Your task to perform on an android device: add a contact in the contacts app Image 0: 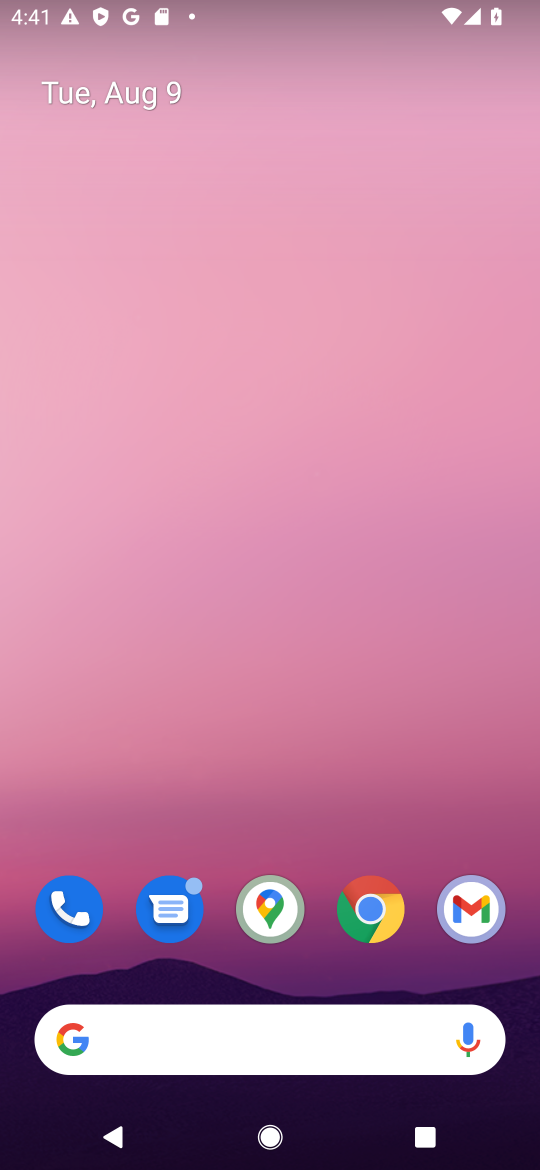
Step 0: drag from (380, 833) to (335, 219)
Your task to perform on an android device: add a contact in the contacts app Image 1: 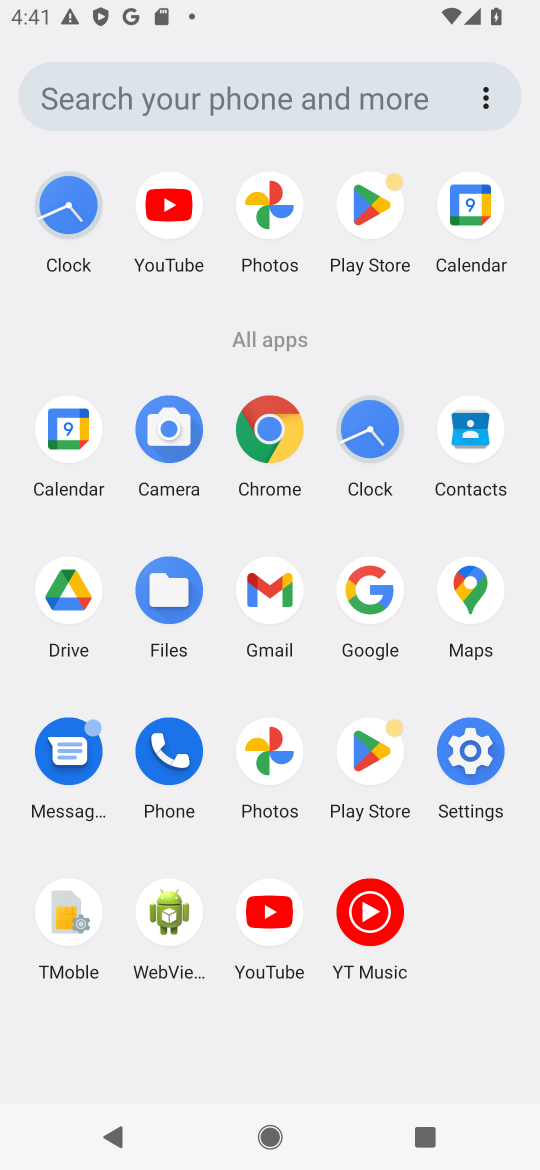
Step 1: click (473, 458)
Your task to perform on an android device: add a contact in the contacts app Image 2: 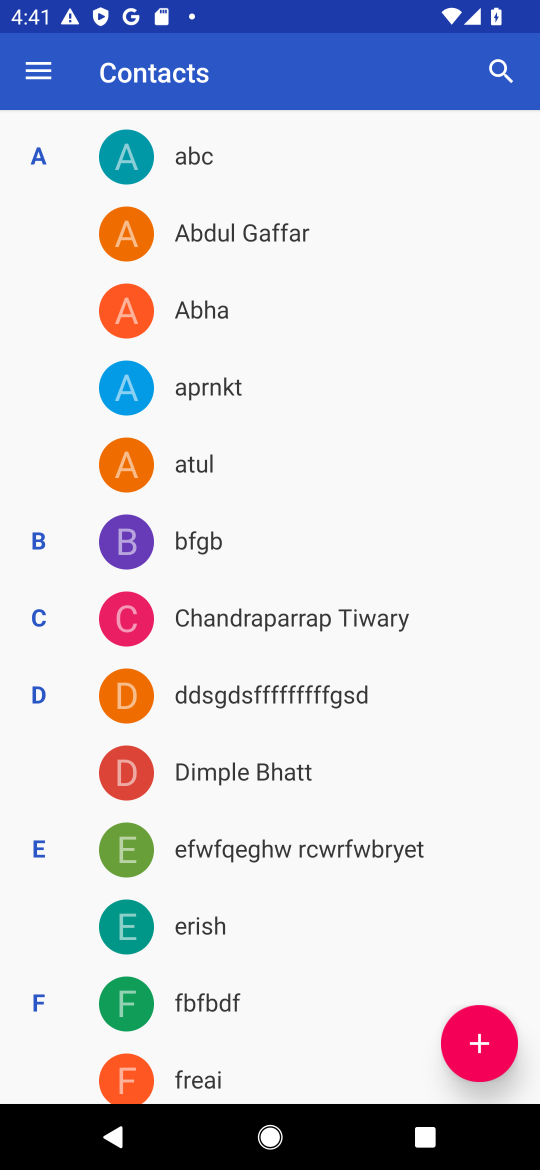
Step 2: click (489, 1064)
Your task to perform on an android device: add a contact in the contacts app Image 3: 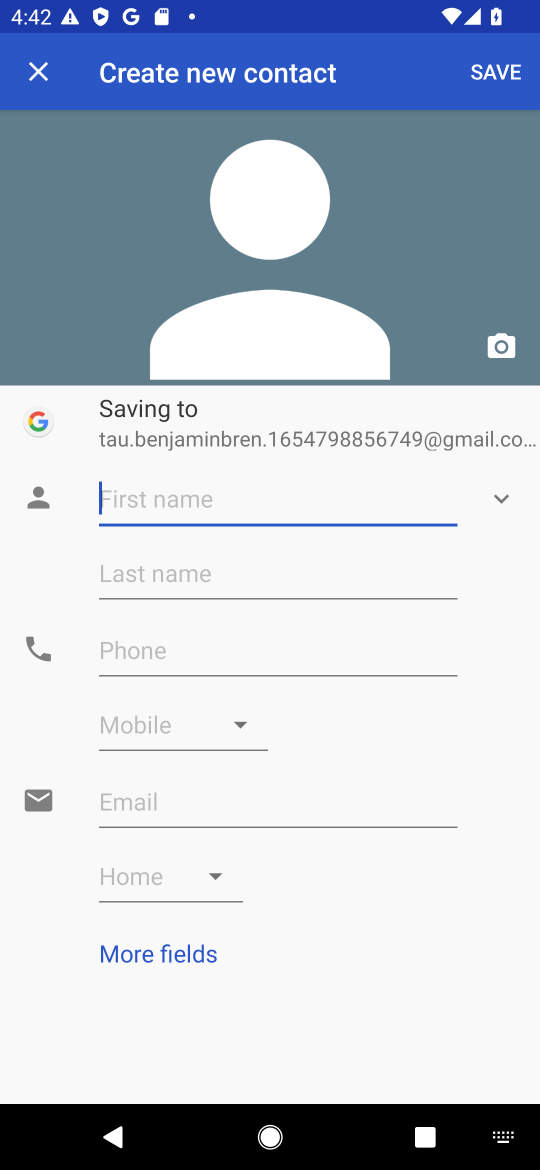
Step 3: click (254, 507)
Your task to perform on an android device: add a contact in the contacts app Image 4: 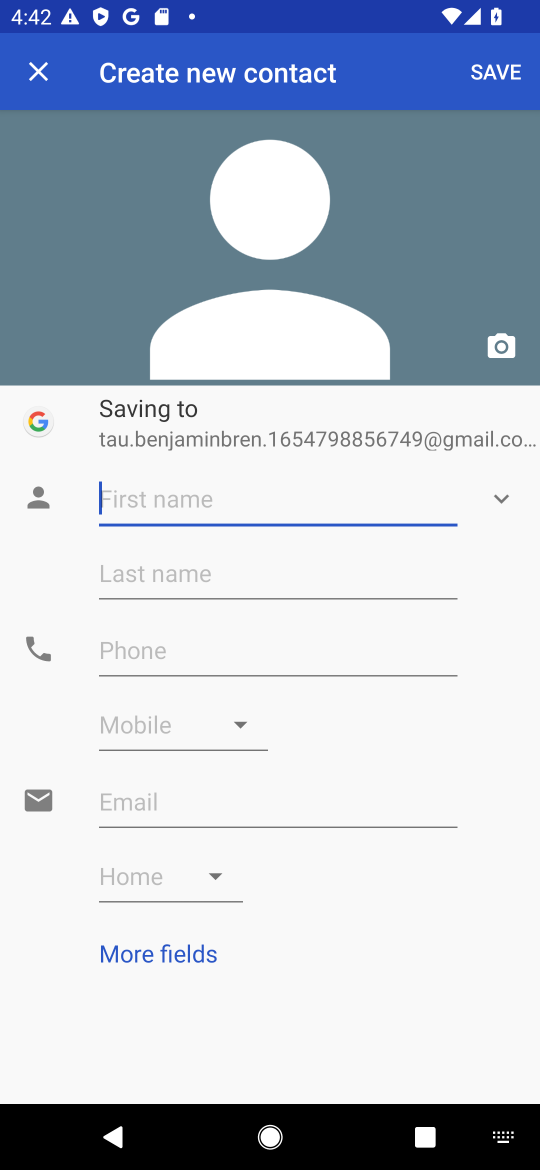
Step 4: type "jgvhk"
Your task to perform on an android device: add a contact in the contacts app Image 5: 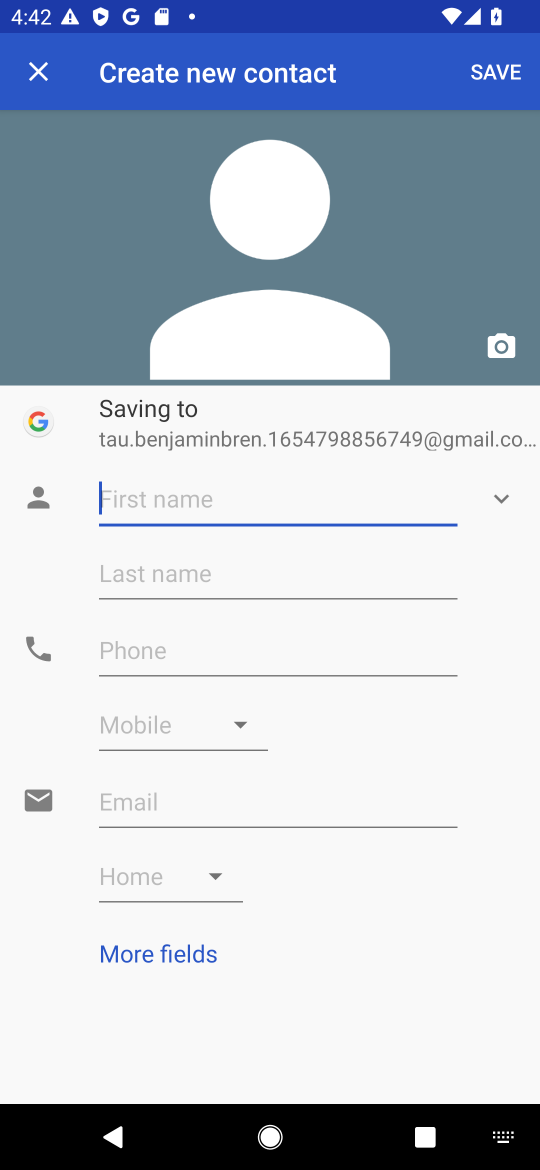
Step 5: click (191, 650)
Your task to perform on an android device: add a contact in the contacts app Image 6: 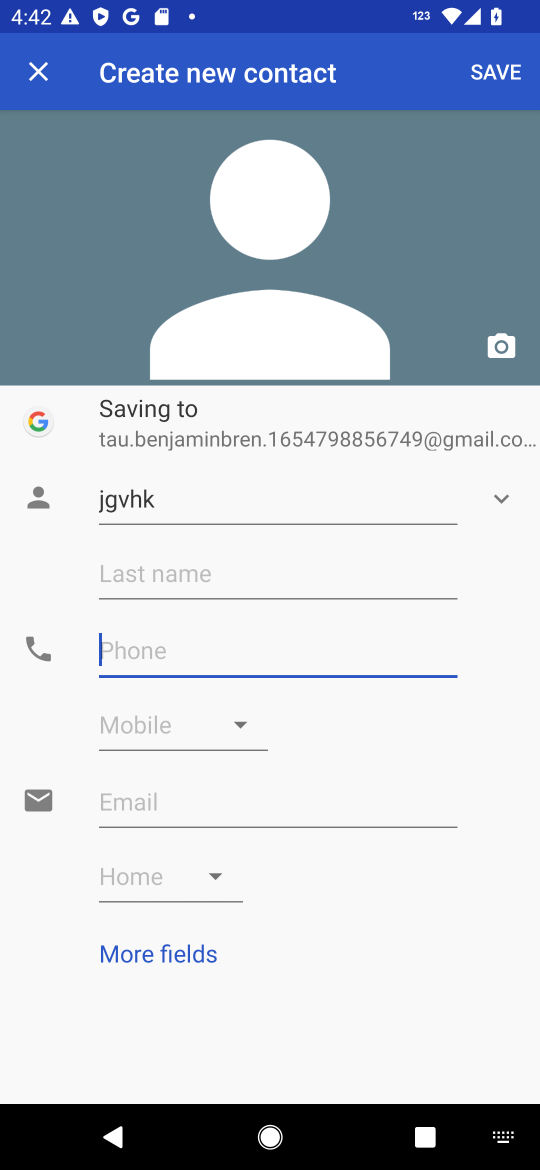
Step 6: click (191, 650)
Your task to perform on an android device: add a contact in the contacts app Image 7: 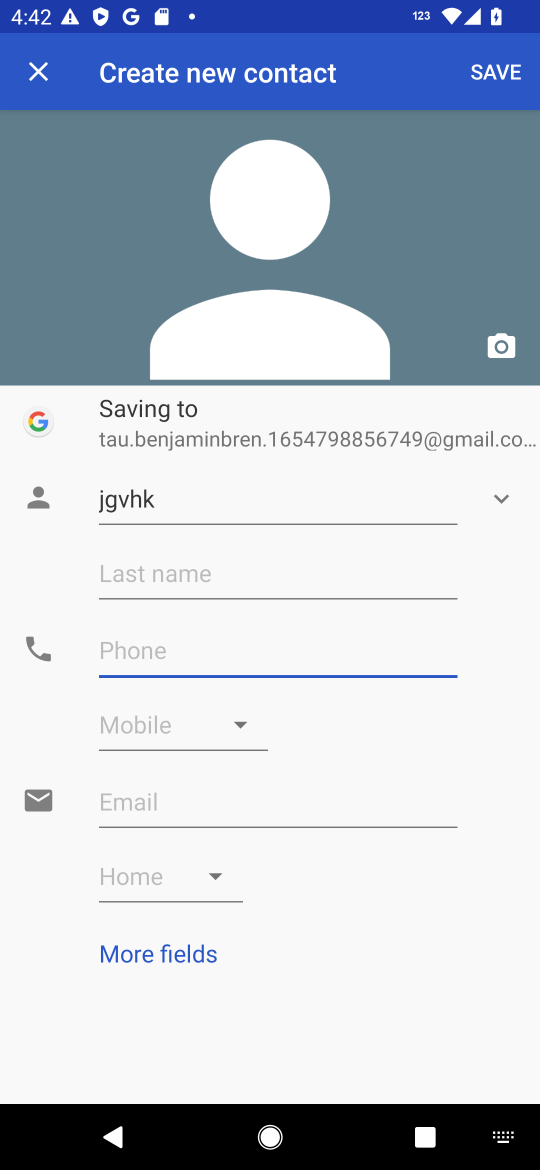
Step 7: type "8998899889"
Your task to perform on an android device: add a contact in the contacts app Image 8: 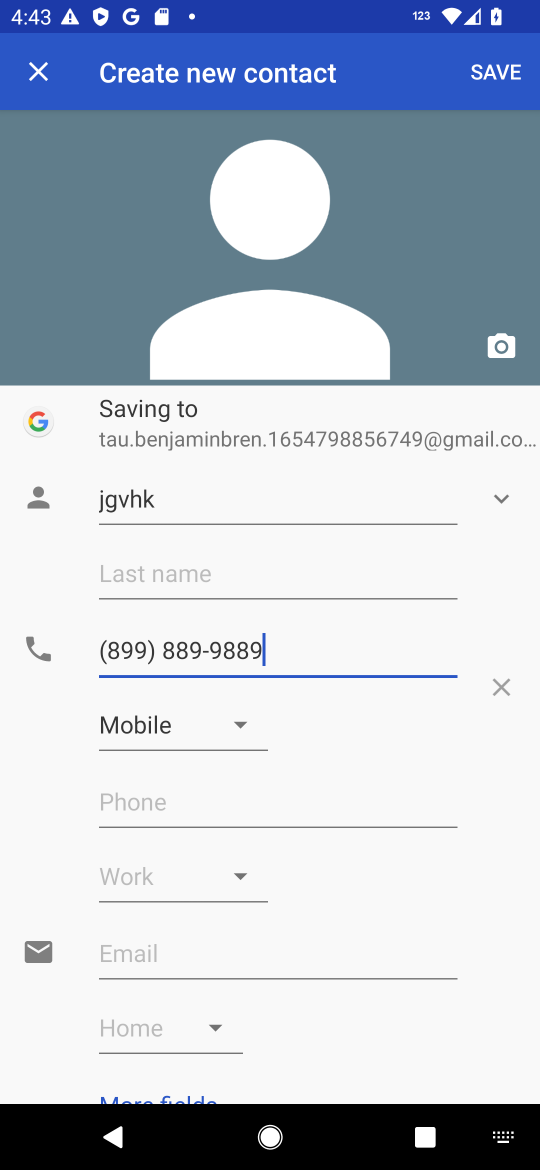
Step 8: click (513, 70)
Your task to perform on an android device: add a contact in the contacts app Image 9: 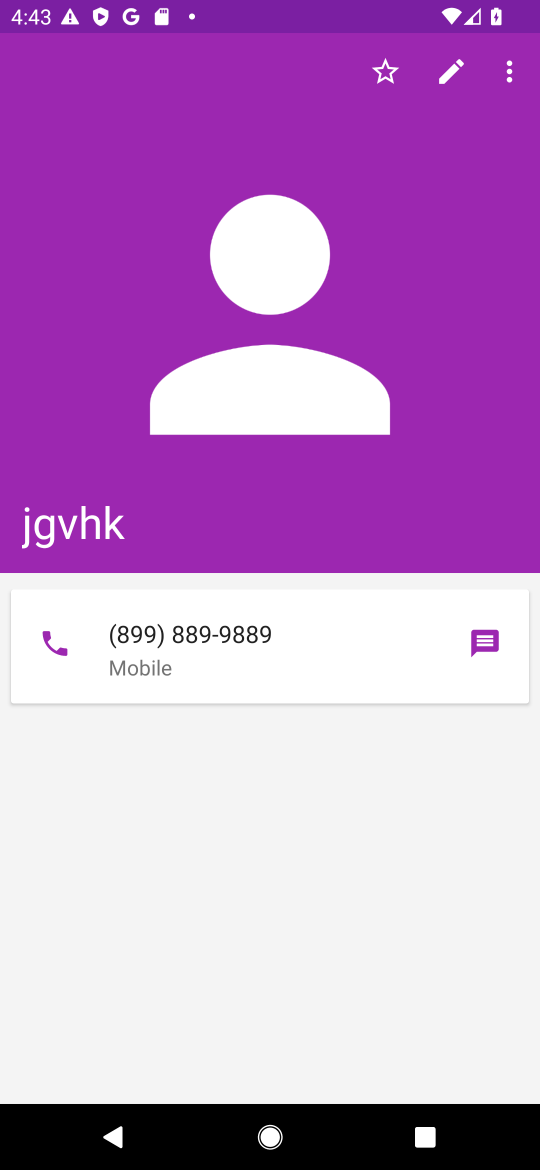
Step 9: task complete